Your task to perform on an android device: see creations saved in the google photos Image 0: 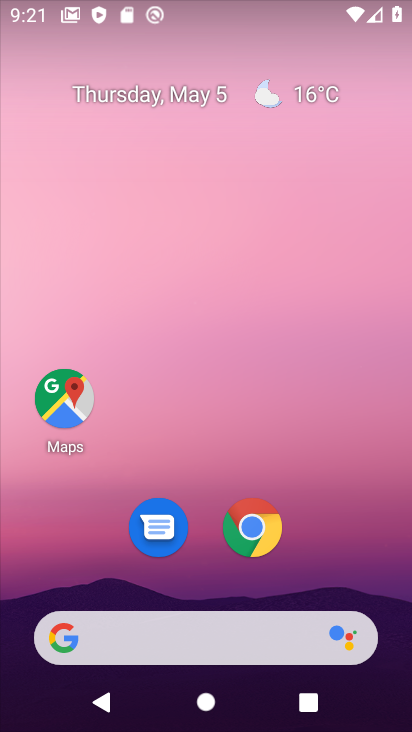
Step 0: drag from (209, 594) to (217, 85)
Your task to perform on an android device: see creations saved in the google photos Image 1: 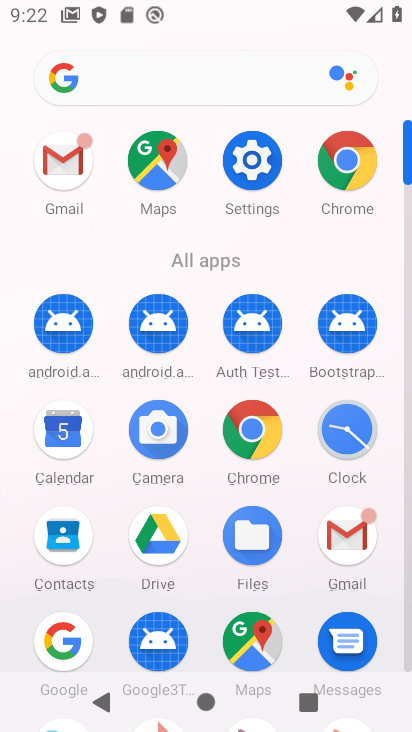
Step 1: drag from (192, 615) to (243, 45)
Your task to perform on an android device: see creations saved in the google photos Image 2: 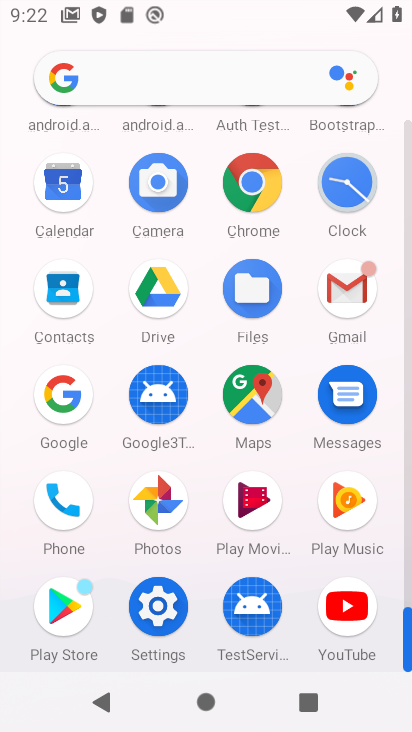
Step 2: click (157, 491)
Your task to perform on an android device: see creations saved in the google photos Image 3: 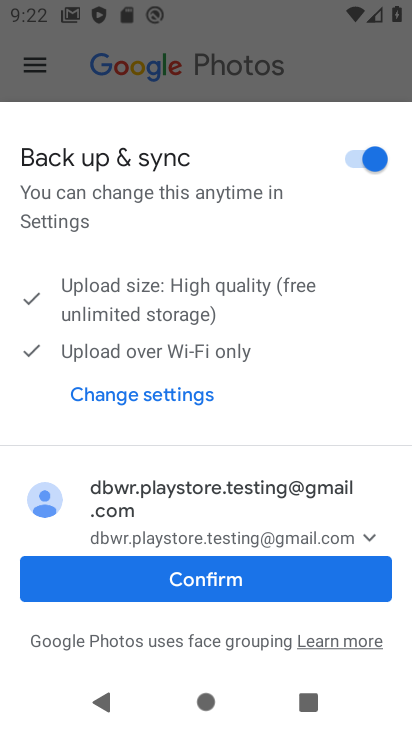
Step 3: click (233, 573)
Your task to perform on an android device: see creations saved in the google photos Image 4: 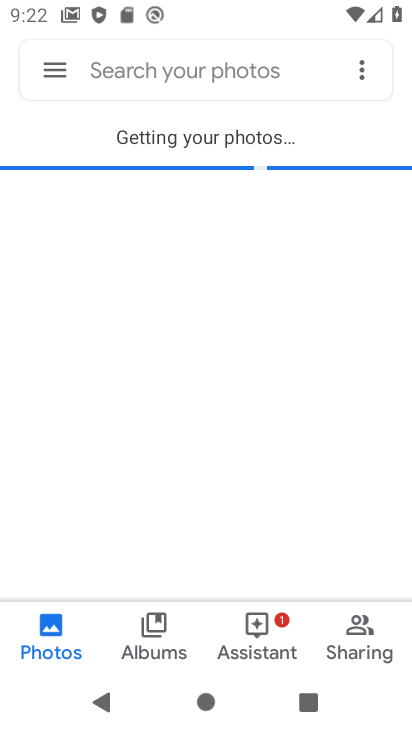
Step 4: click (174, 64)
Your task to perform on an android device: see creations saved in the google photos Image 5: 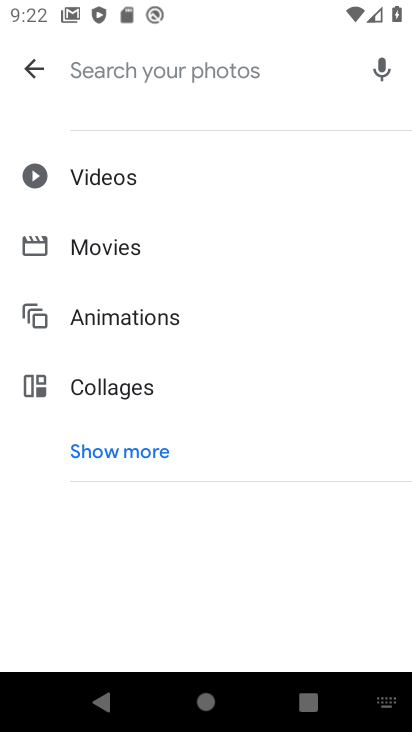
Step 5: click (127, 446)
Your task to perform on an android device: see creations saved in the google photos Image 6: 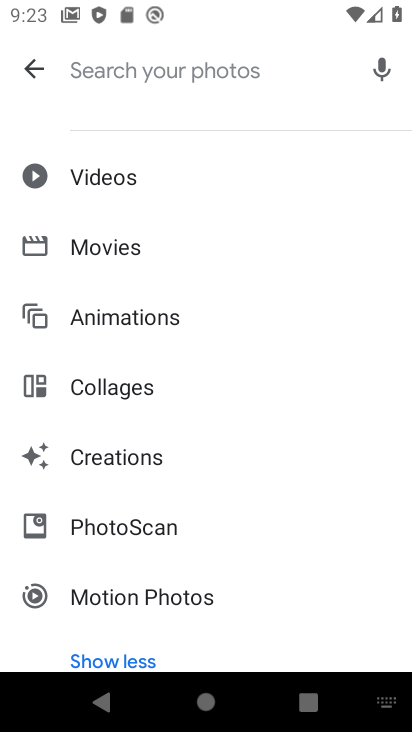
Step 6: click (108, 447)
Your task to perform on an android device: see creations saved in the google photos Image 7: 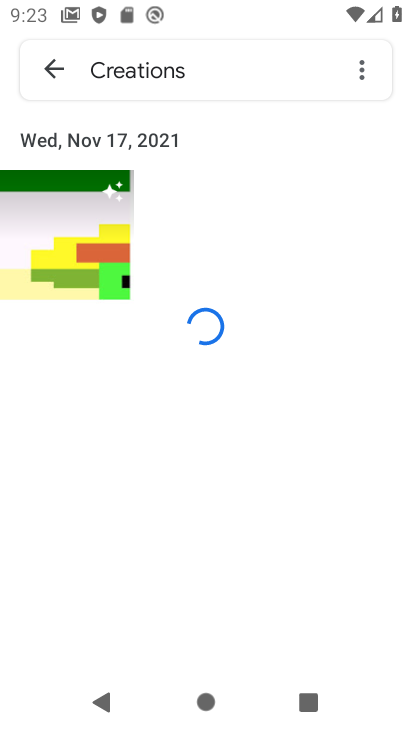
Step 7: task complete